Your task to perform on an android device: remove spam from my inbox in the gmail app Image 0: 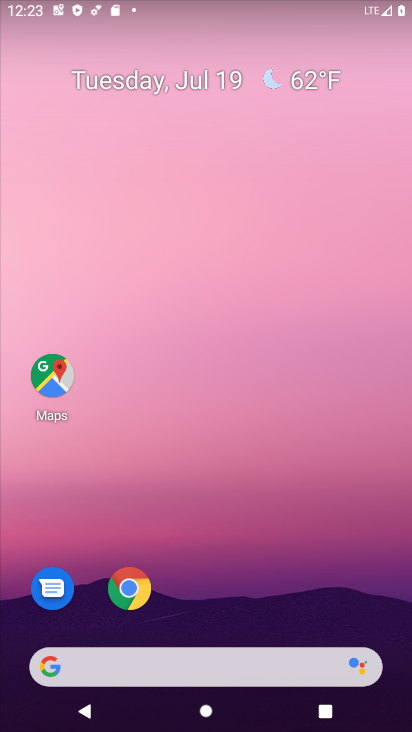
Step 0: drag from (289, 581) to (277, 100)
Your task to perform on an android device: remove spam from my inbox in the gmail app Image 1: 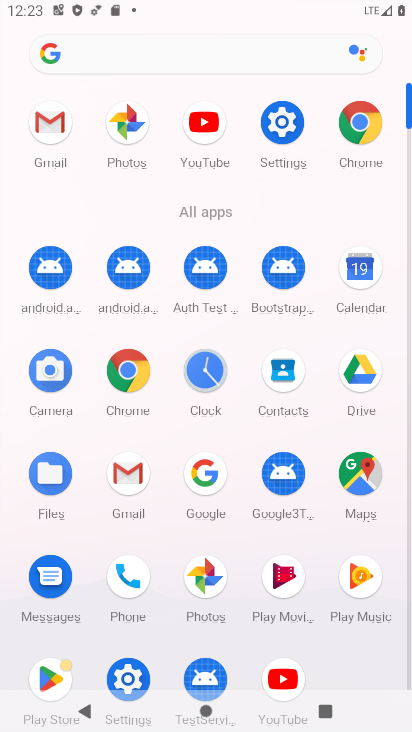
Step 1: click (130, 456)
Your task to perform on an android device: remove spam from my inbox in the gmail app Image 2: 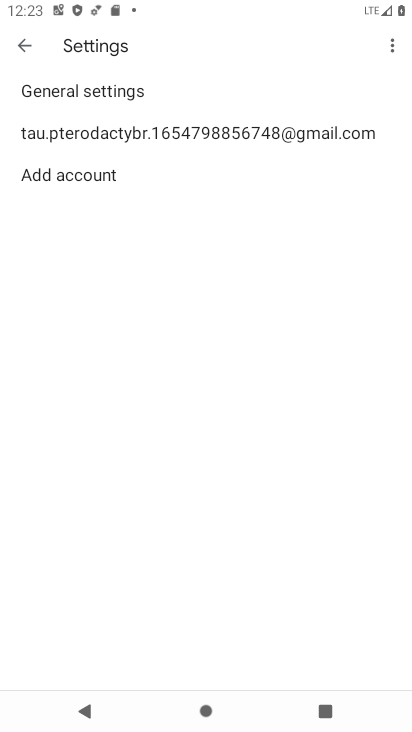
Step 2: click (20, 39)
Your task to perform on an android device: remove spam from my inbox in the gmail app Image 3: 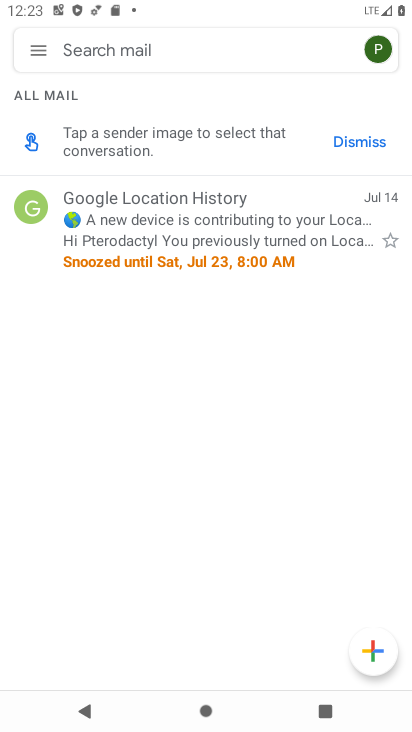
Step 3: click (31, 50)
Your task to perform on an android device: remove spam from my inbox in the gmail app Image 4: 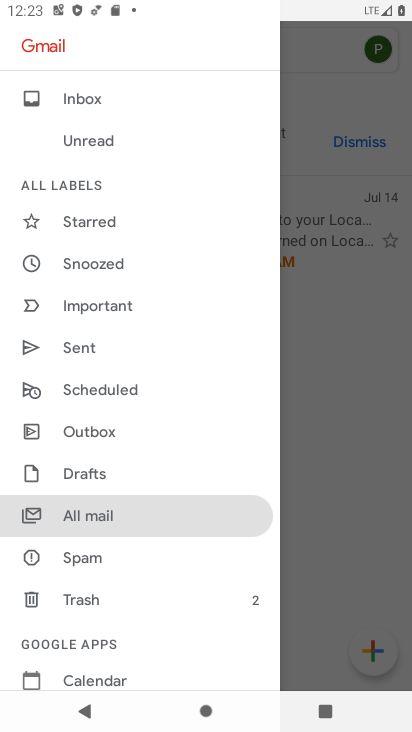
Step 4: click (126, 553)
Your task to perform on an android device: remove spam from my inbox in the gmail app Image 5: 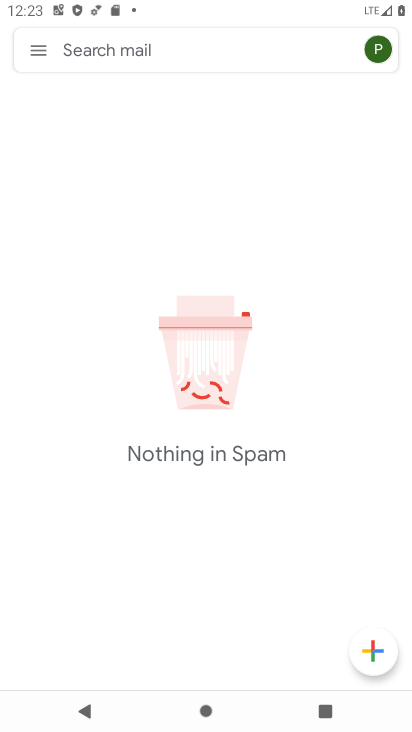
Step 5: task complete